Your task to perform on an android device: What's a good restaurant in New Jersey? Image 0: 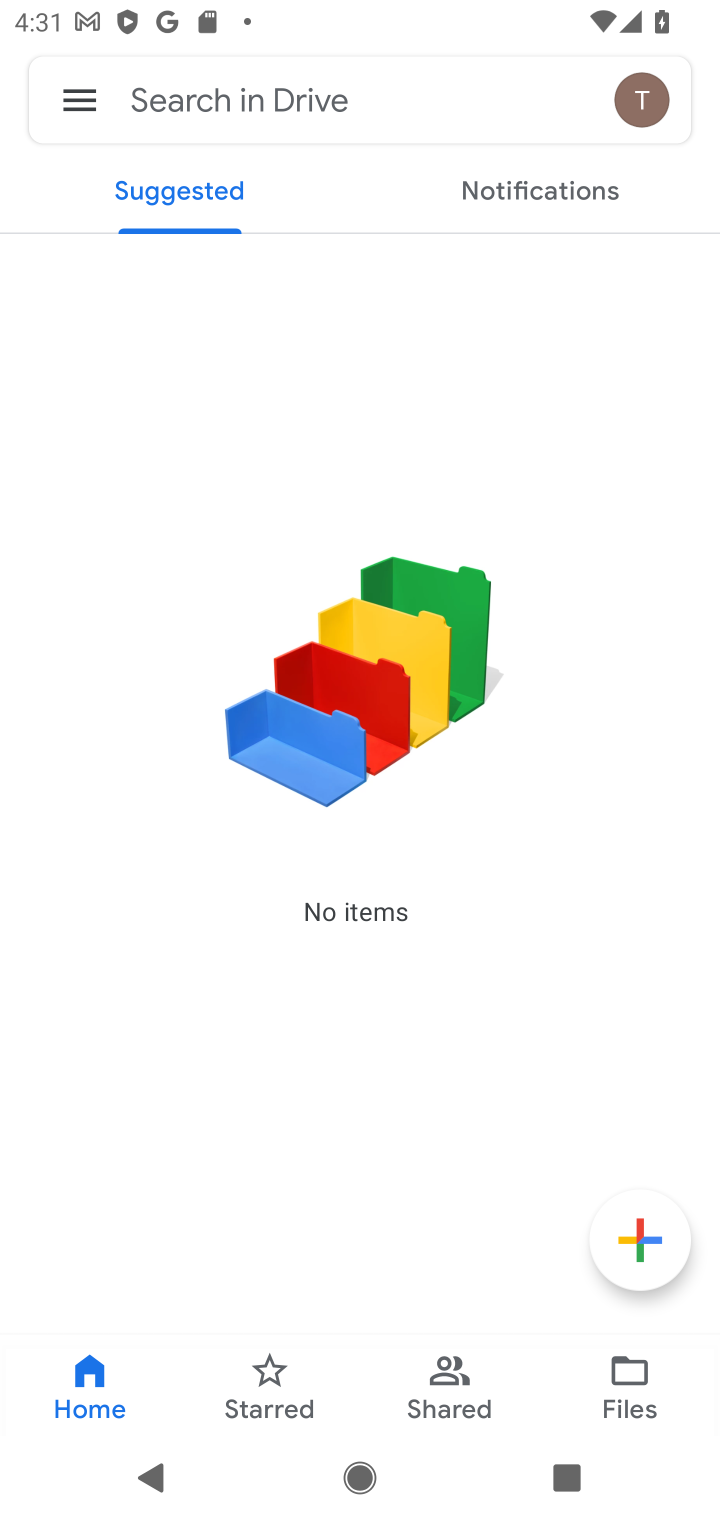
Step 0: press home button
Your task to perform on an android device: What's a good restaurant in New Jersey? Image 1: 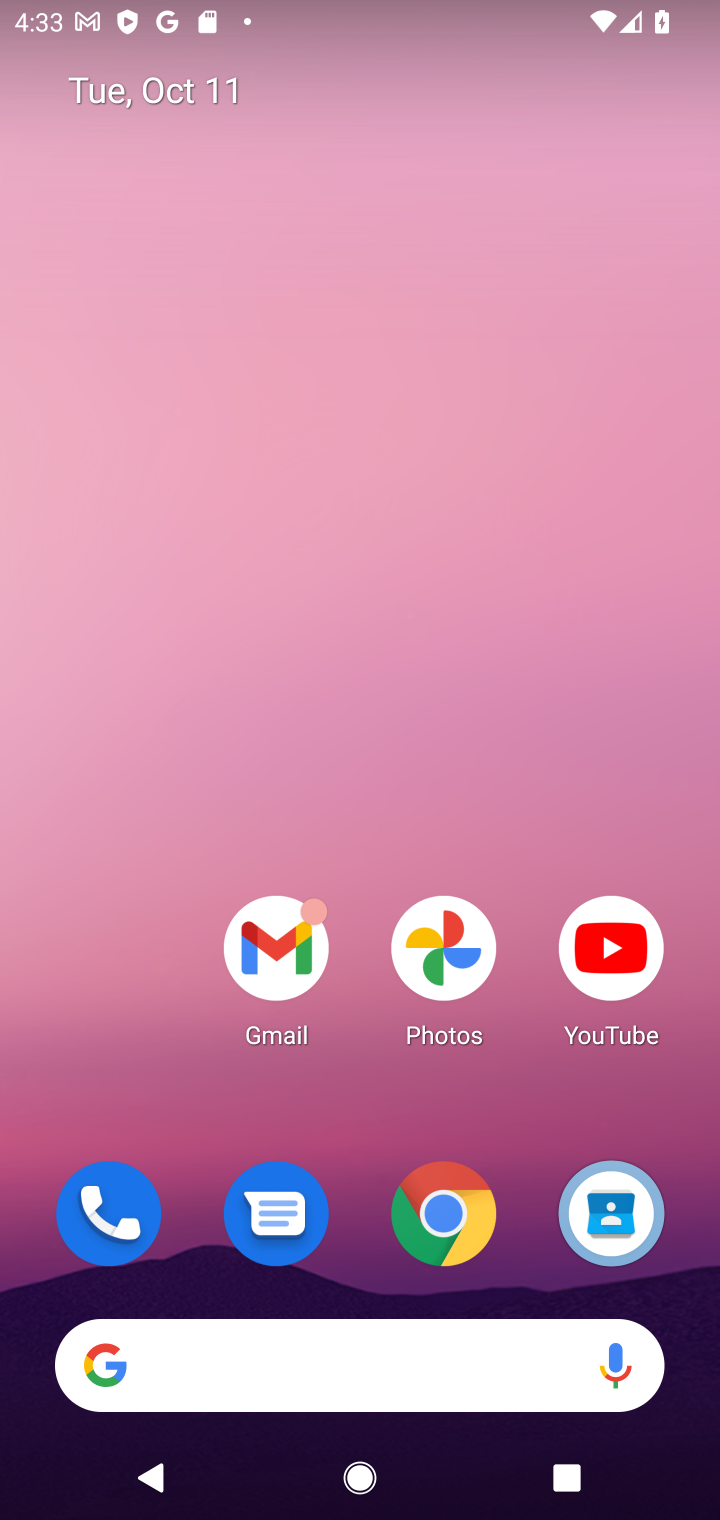
Step 1: click (430, 1217)
Your task to perform on an android device: What's a good restaurant in New Jersey? Image 2: 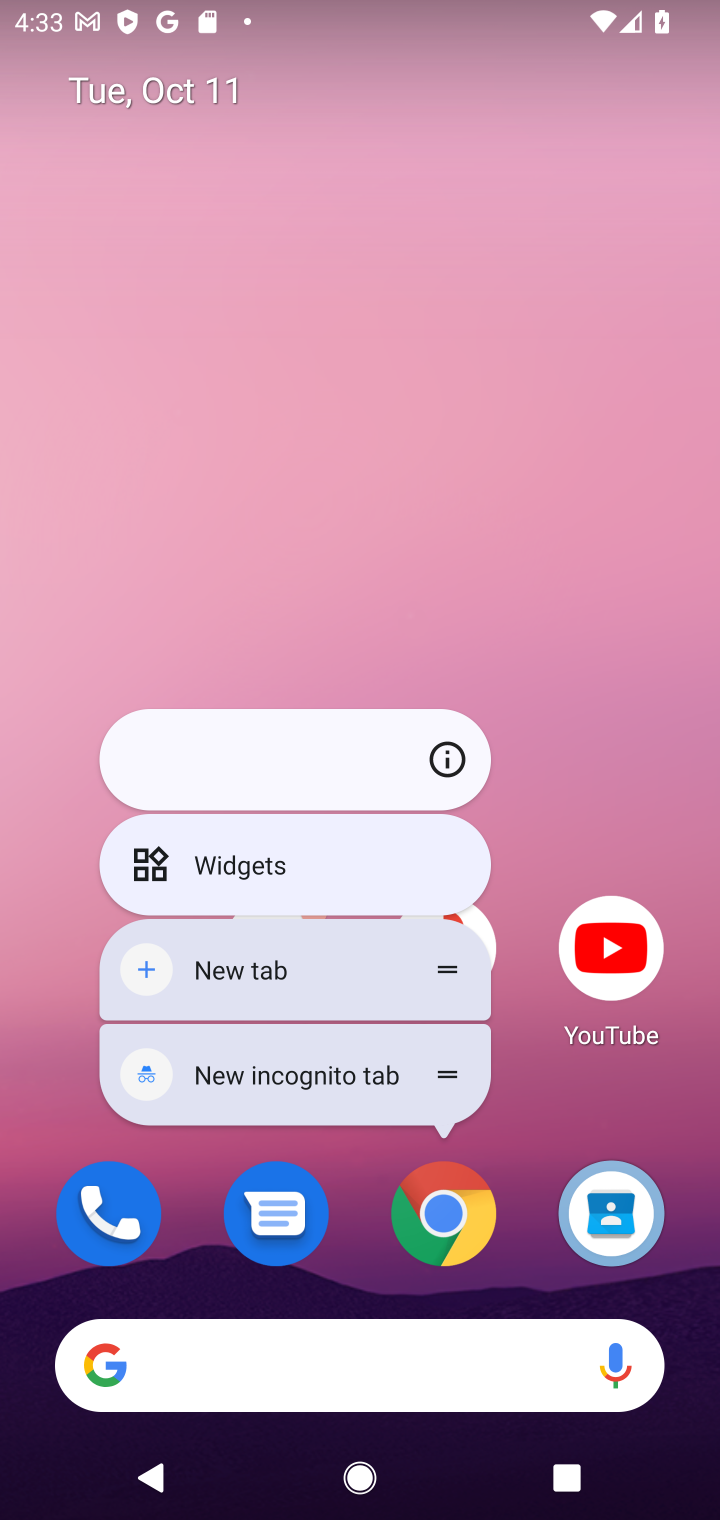
Step 2: click (461, 1232)
Your task to perform on an android device: What's a good restaurant in New Jersey? Image 3: 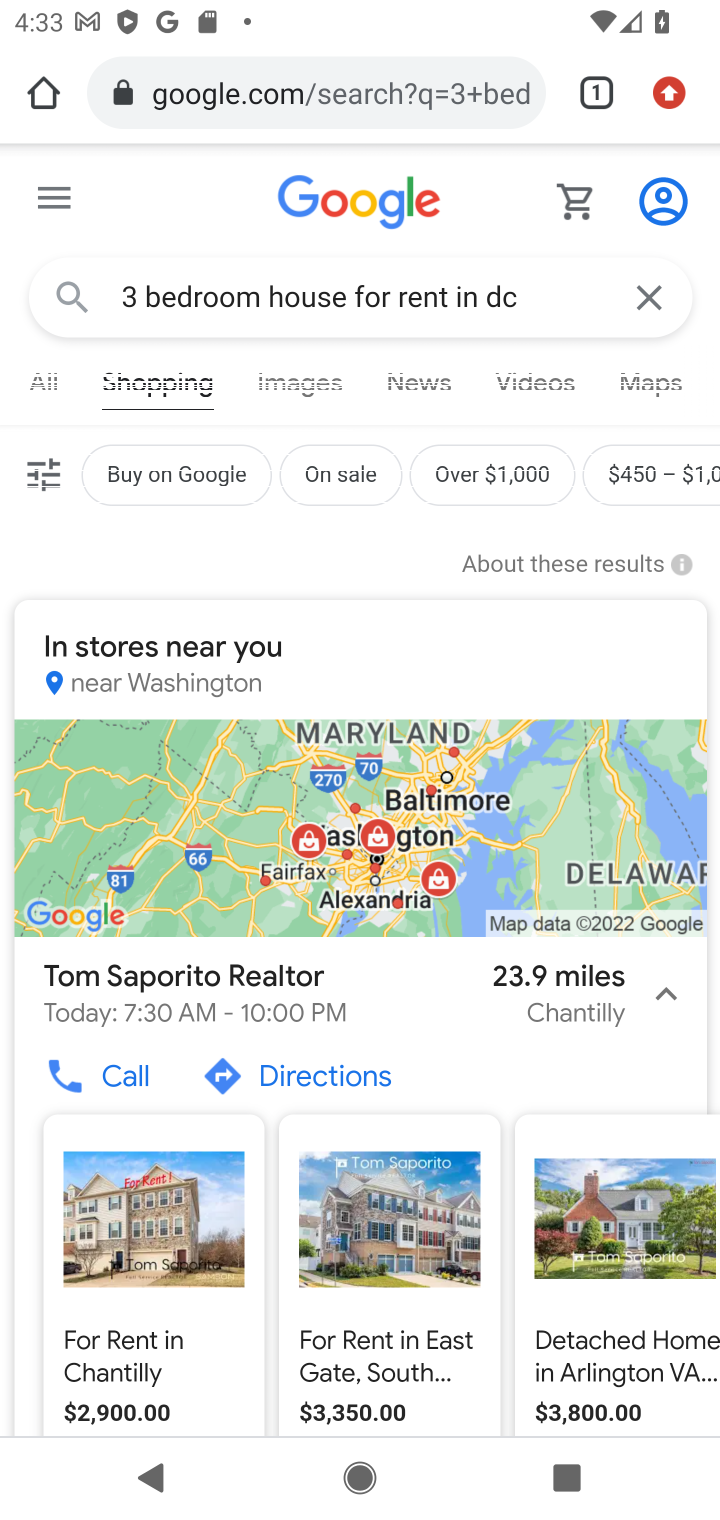
Step 3: click (319, 291)
Your task to perform on an android device: What's a good restaurant in New Jersey? Image 4: 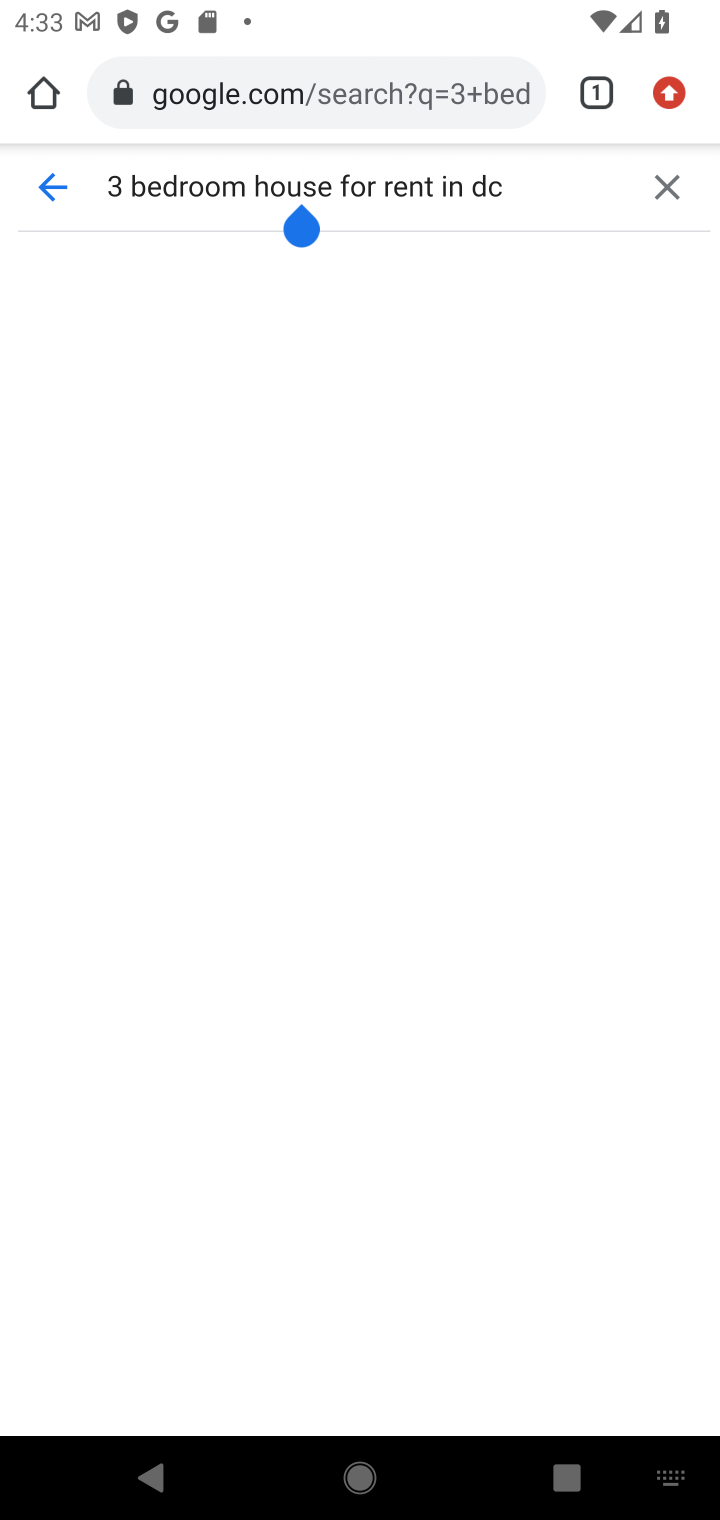
Step 4: click (666, 197)
Your task to perform on an android device: What's a good restaurant in New Jersey? Image 5: 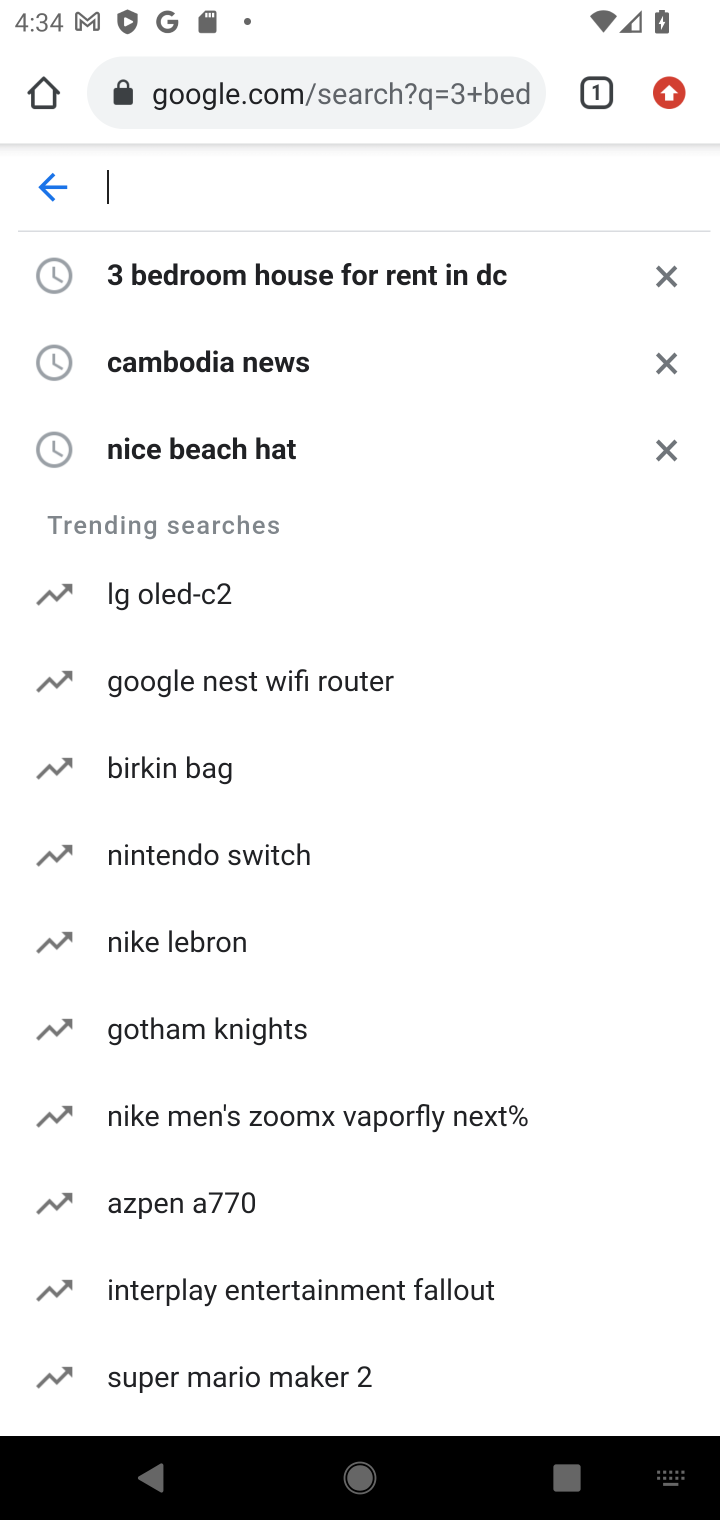
Step 5: type "restaurant in new jersey"
Your task to perform on an android device: What's a good restaurant in New Jersey? Image 6: 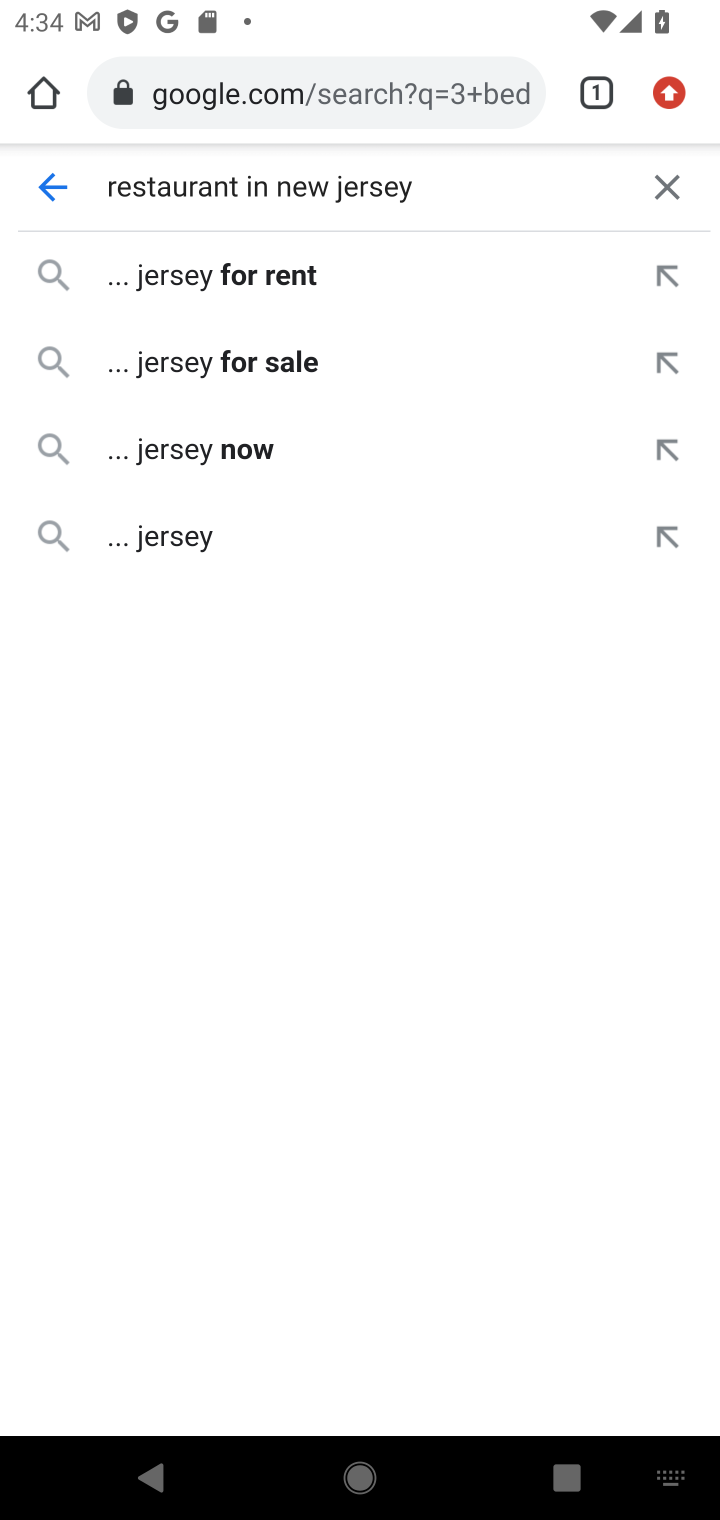
Step 6: click (97, 185)
Your task to perform on an android device: What's a good restaurant in New Jersey? Image 7: 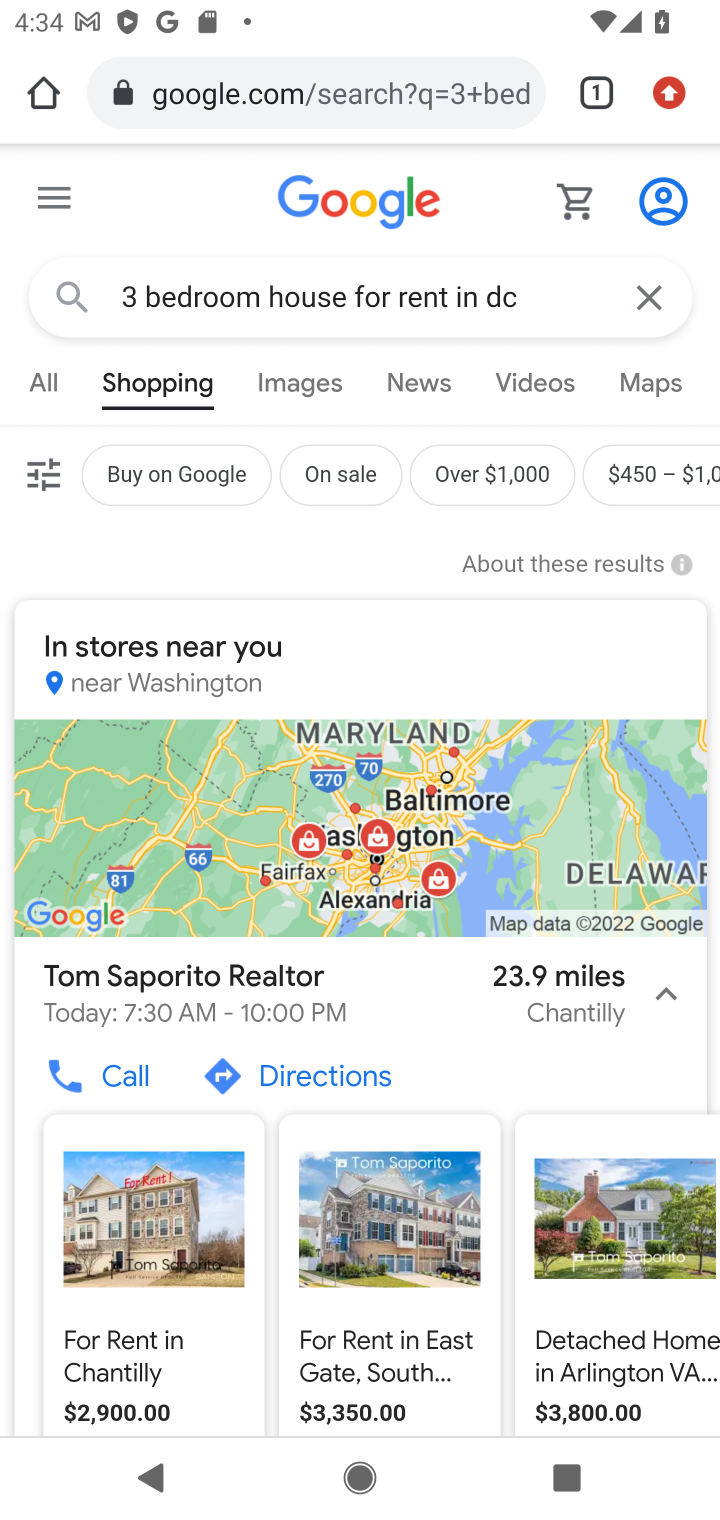
Step 7: click (684, 309)
Your task to perform on an android device: What's a good restaurant in New Jersey? Image 8: 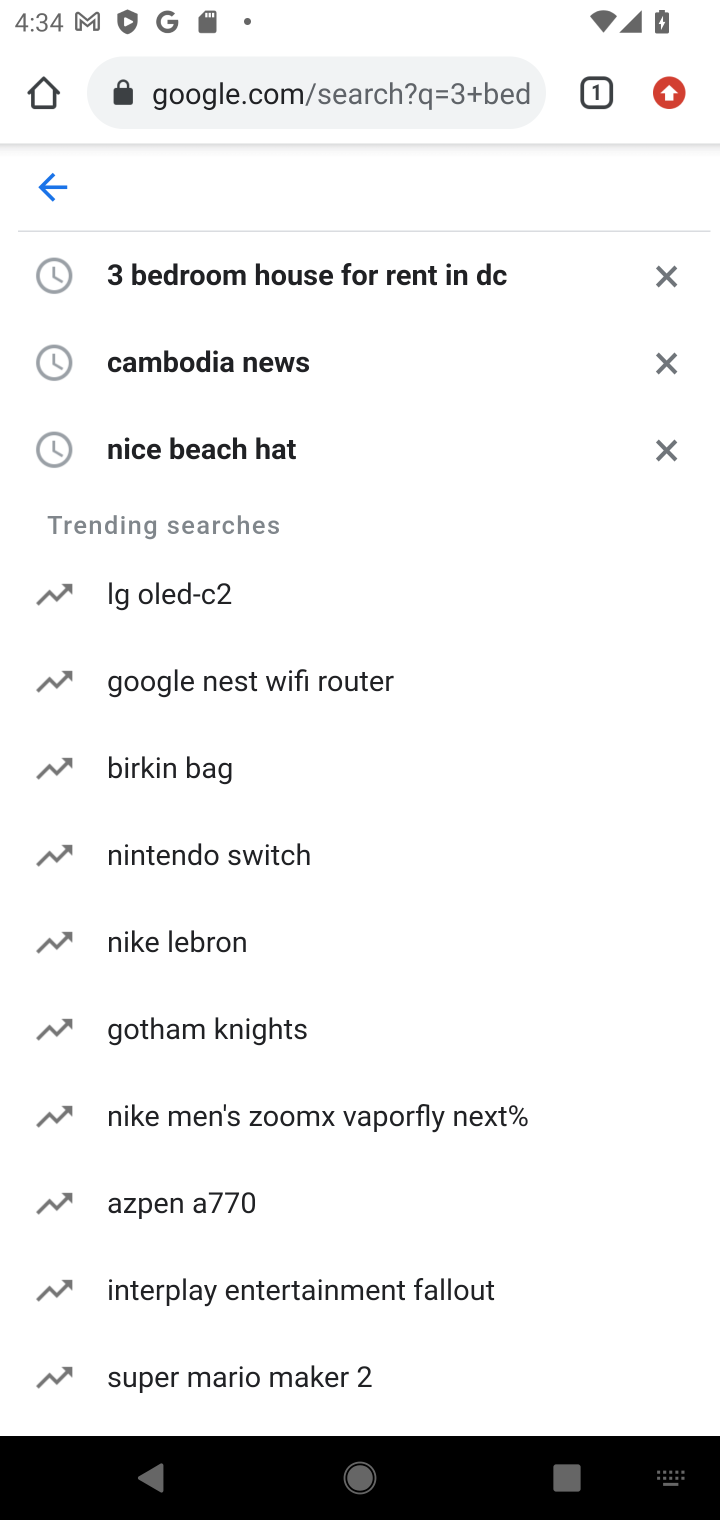
Step 8: type "good restaurant in new jersey"
Your task to perform on an android device: What's a good restaurant in New Jersey? Image 9: 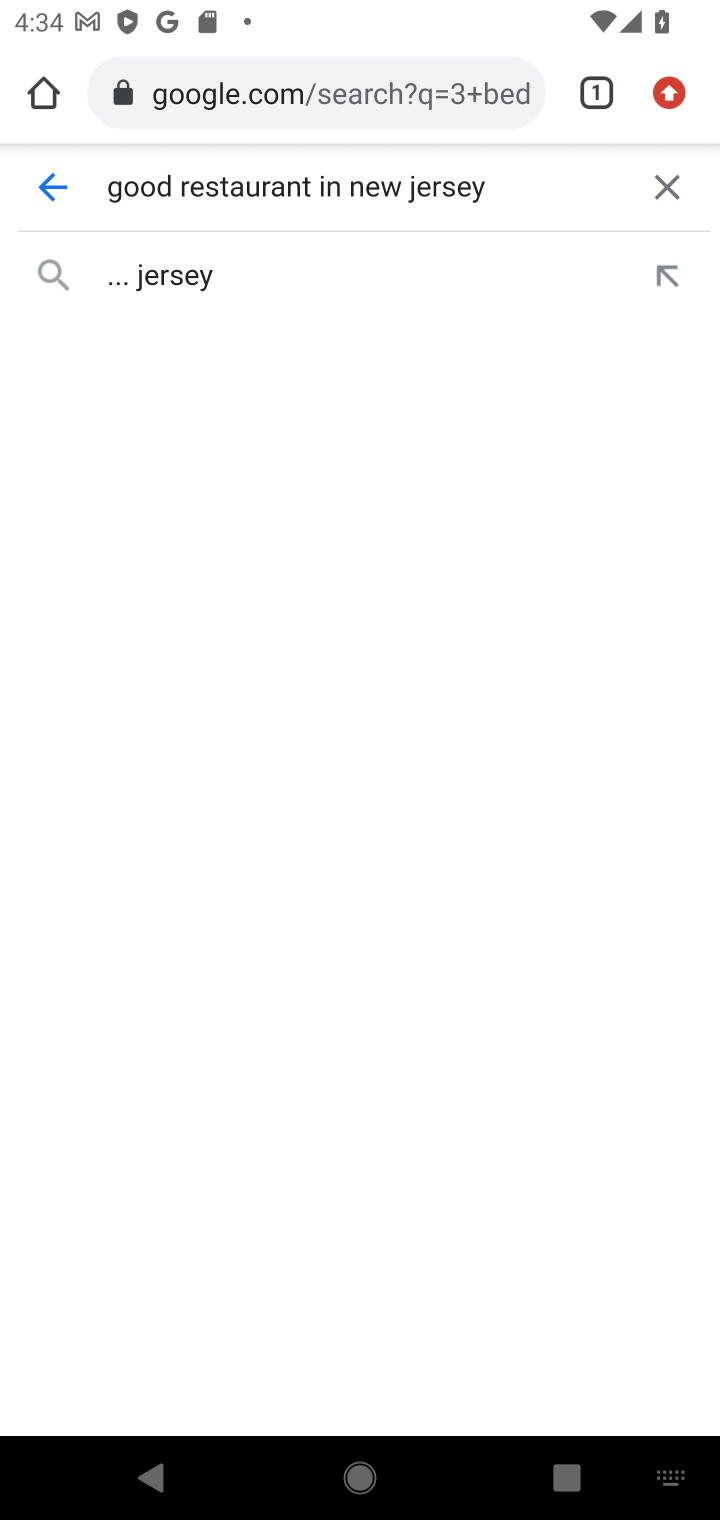
Step 9: click (171, 290)
Your task to perform on an android device: What's a good restaurant in New Jersey? Image 10: 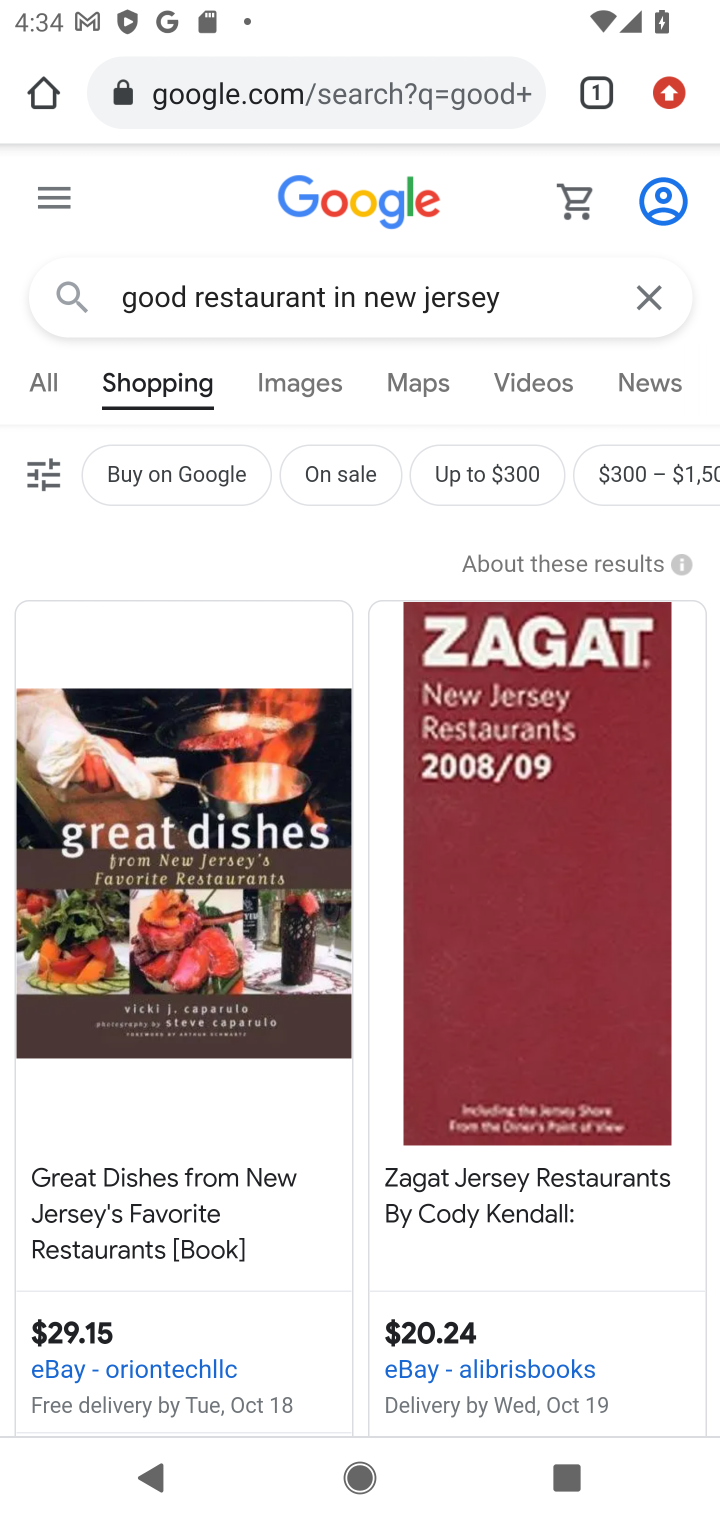
Step 10: click (38, 389)
Your task to perform on an android device: What's a good restaurant in New Jersey? Image 11: 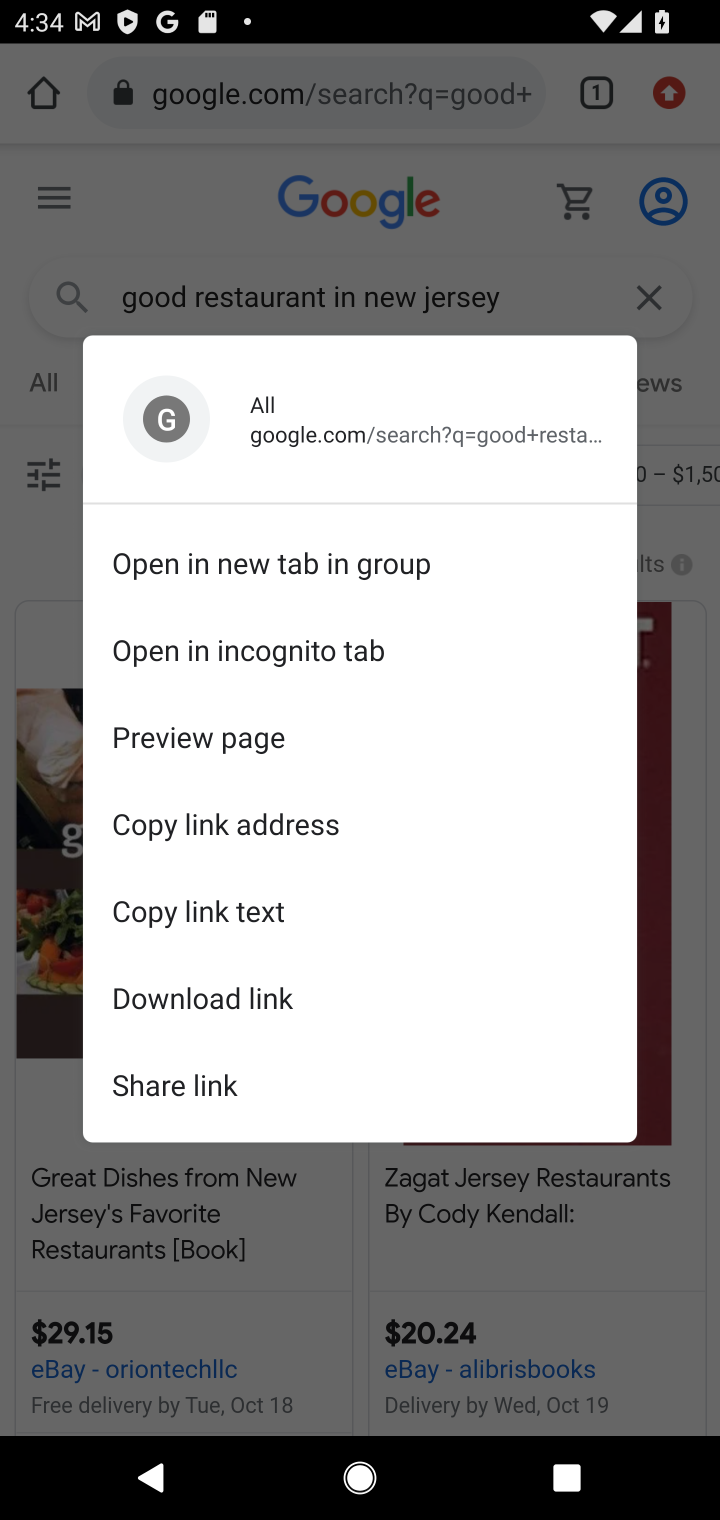
Step 11: click (48, 387)
Your task to perform on an android device: What's a good restaurant in New Jersey? Image 12: 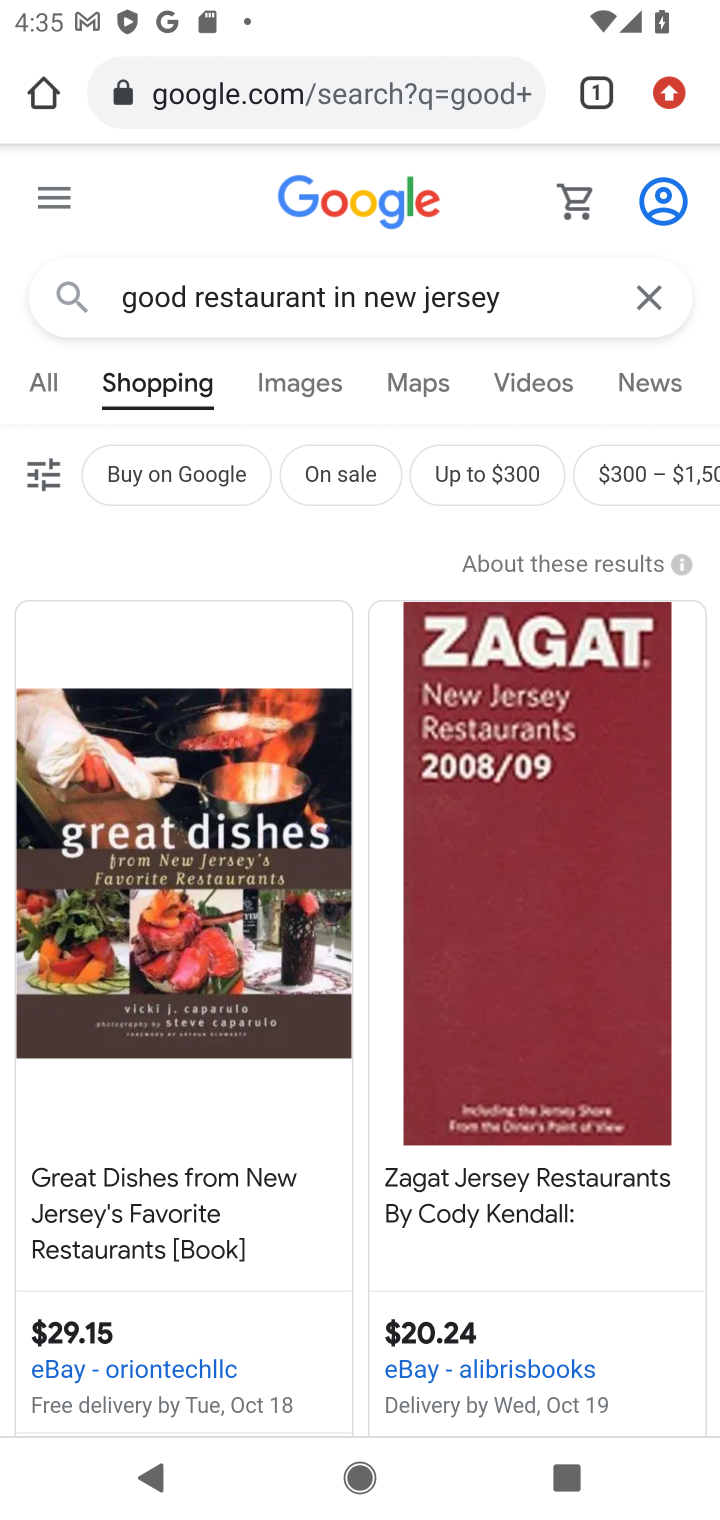
Step 12: click (48, 380)
Your task to perform on an android device: What's a good restaurant in New Jersey? Image 13: 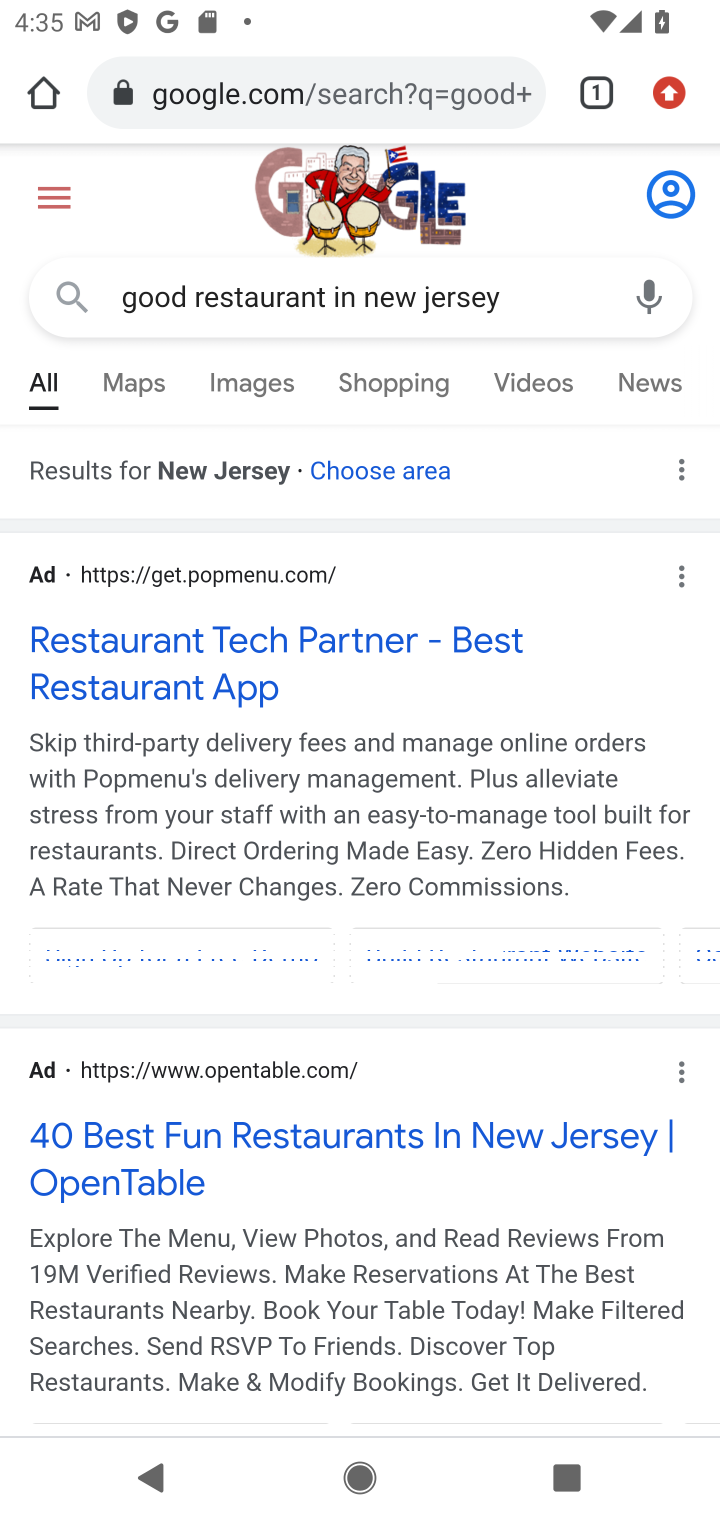
Step 13: click (188, 690)
Your task to perform on an android device: What's a good restaurant in New Jersey? Image 14: 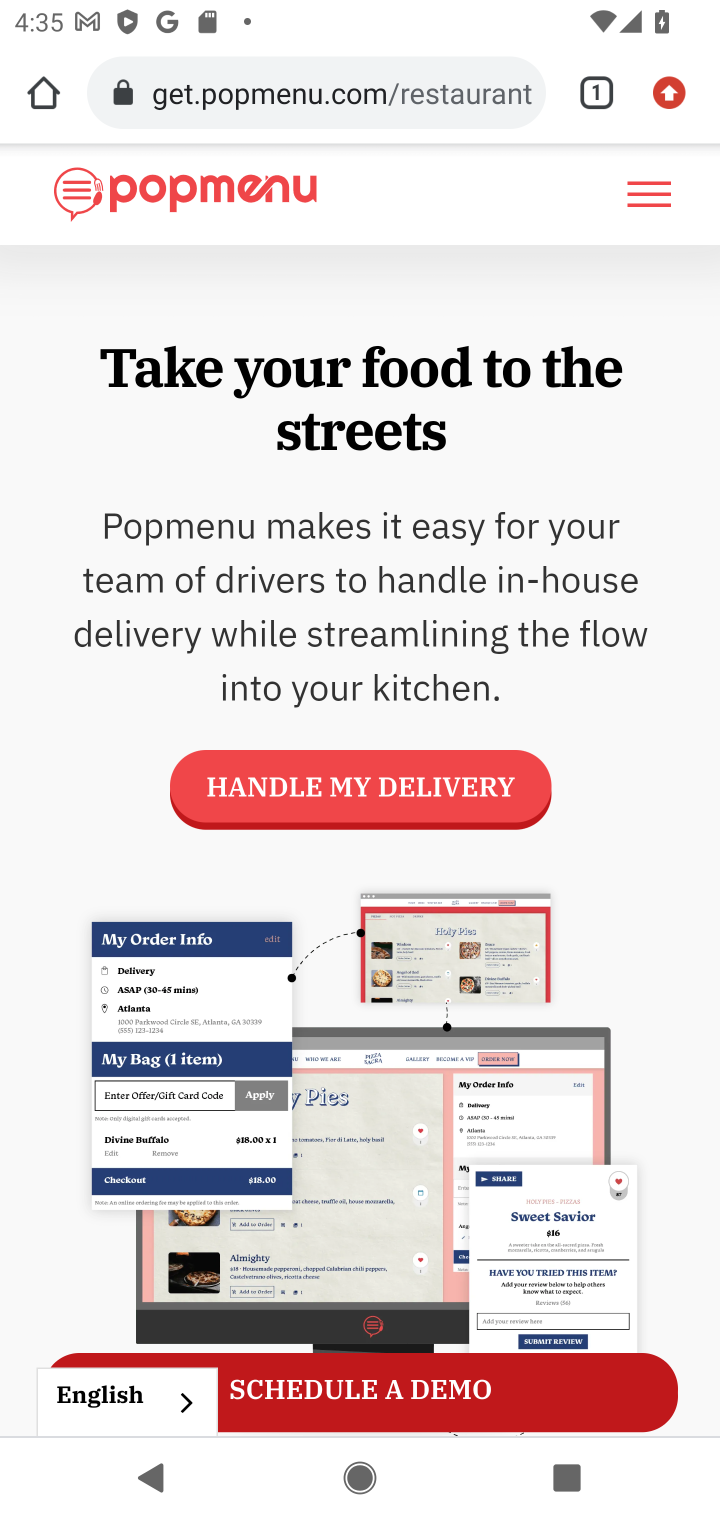
Step 14: drag from (629, 1011) to (567, 480)
Your task to perform on an android device: What's a good restaurant in New Jersey? Image 15: 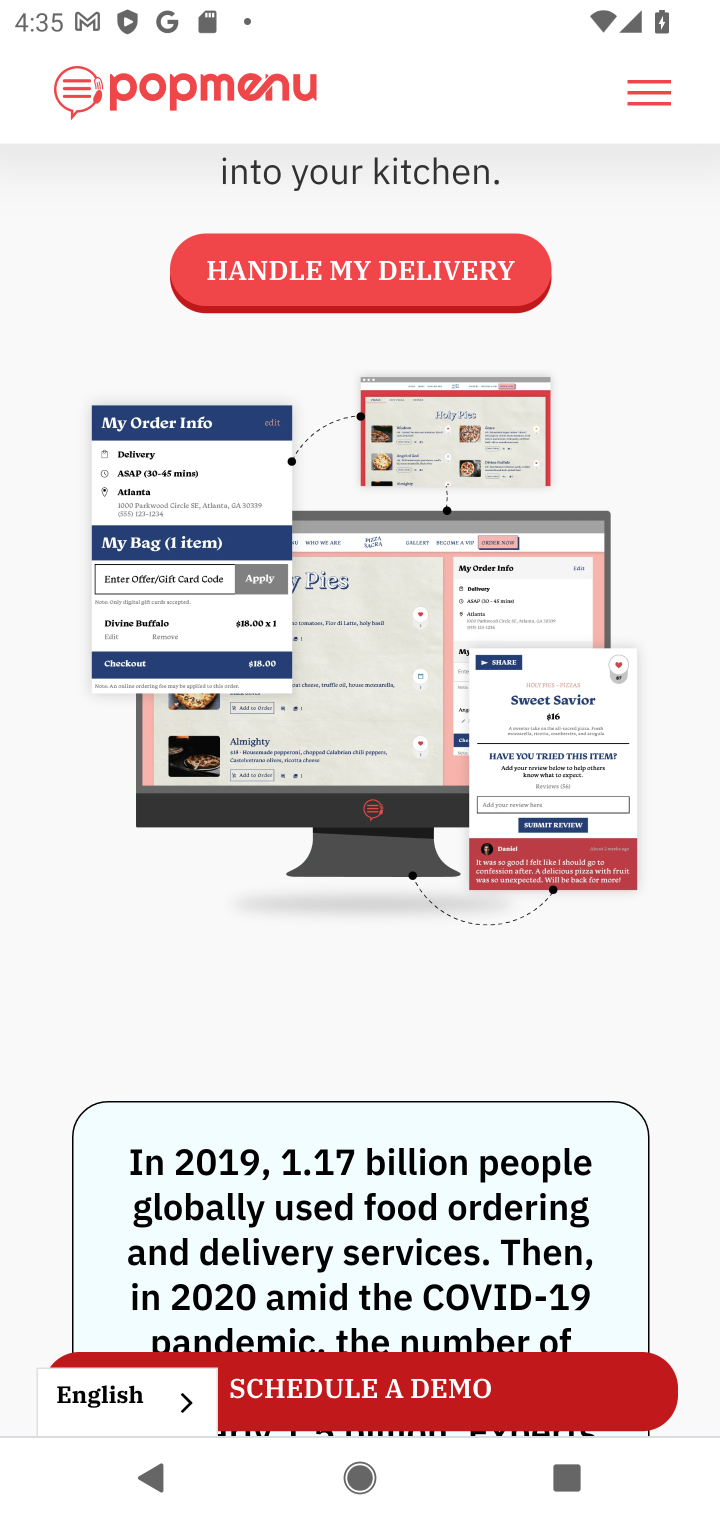
Step 15: drag from (557, 1032) to (519, 391)
Your task to perform on an android device: What's a good restaurant in New Jersey? Image 16: 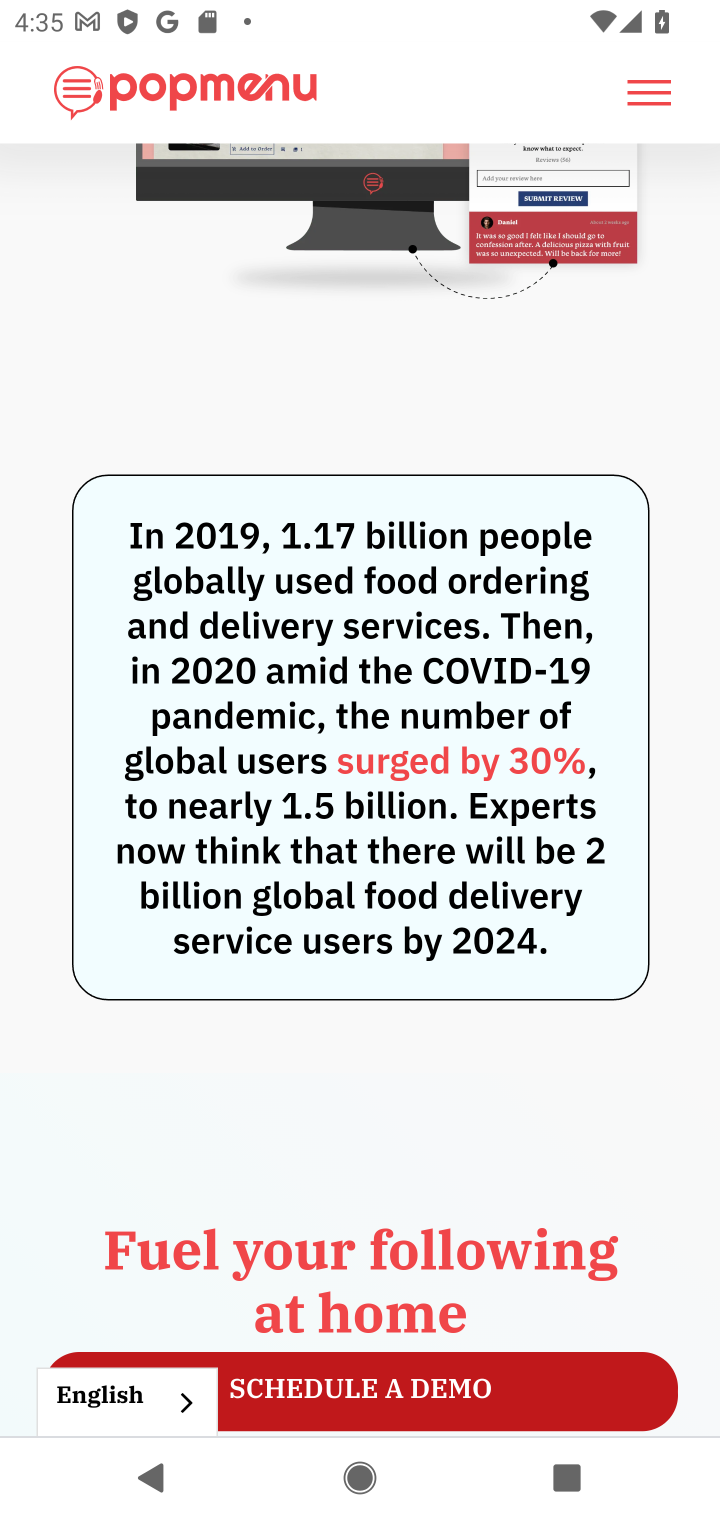
Step 16: drag from (535, 1020) to (476, 399)
Your task to perform on an android device: What's a good restaurant in New Jersey? Image 17: 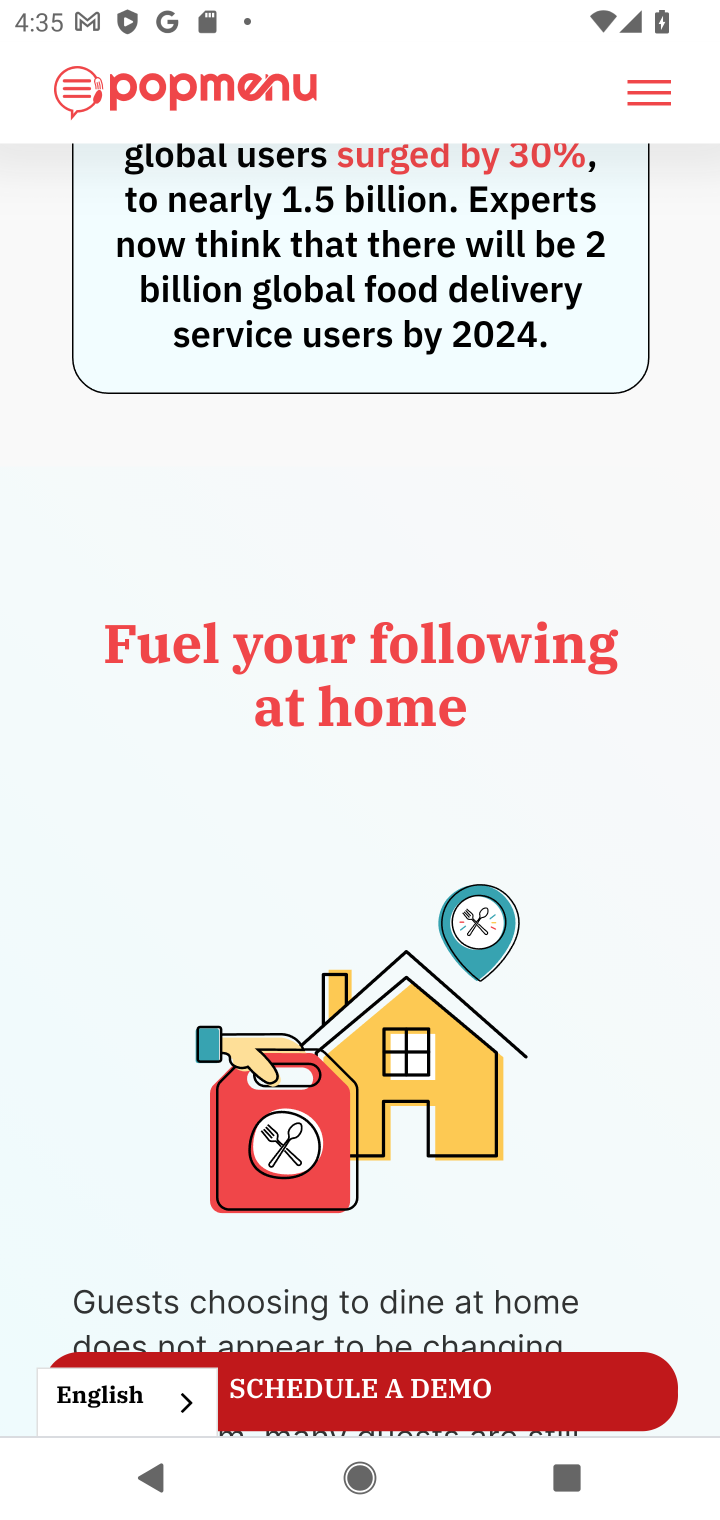
Step 17: press back button
Your task to perform on an android device: What's a good restaurant in New Jersey? Image 18: 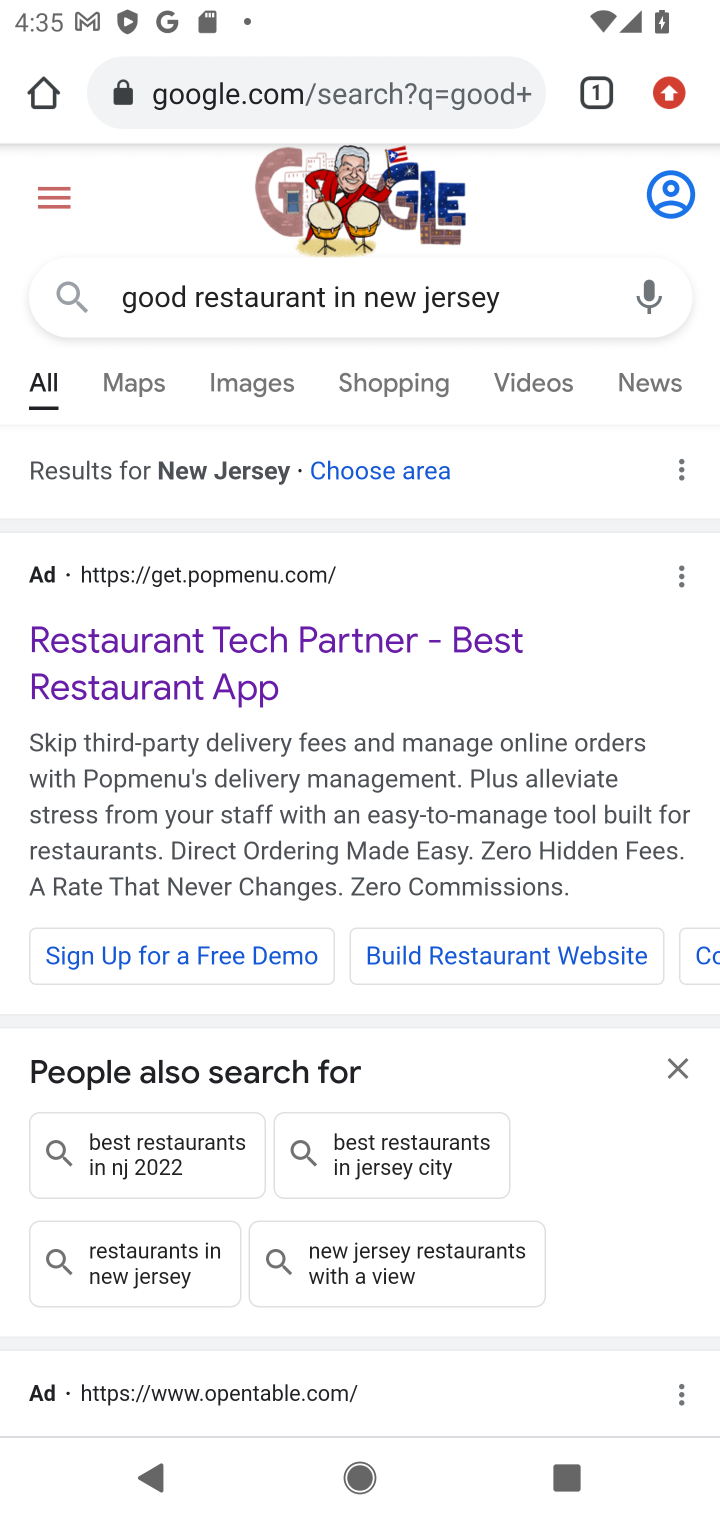
Step 18: drag from (477, 944) to (454, 620)
Your task to perform on an android device: What's a good restaurant in New Jersey? Image 19: 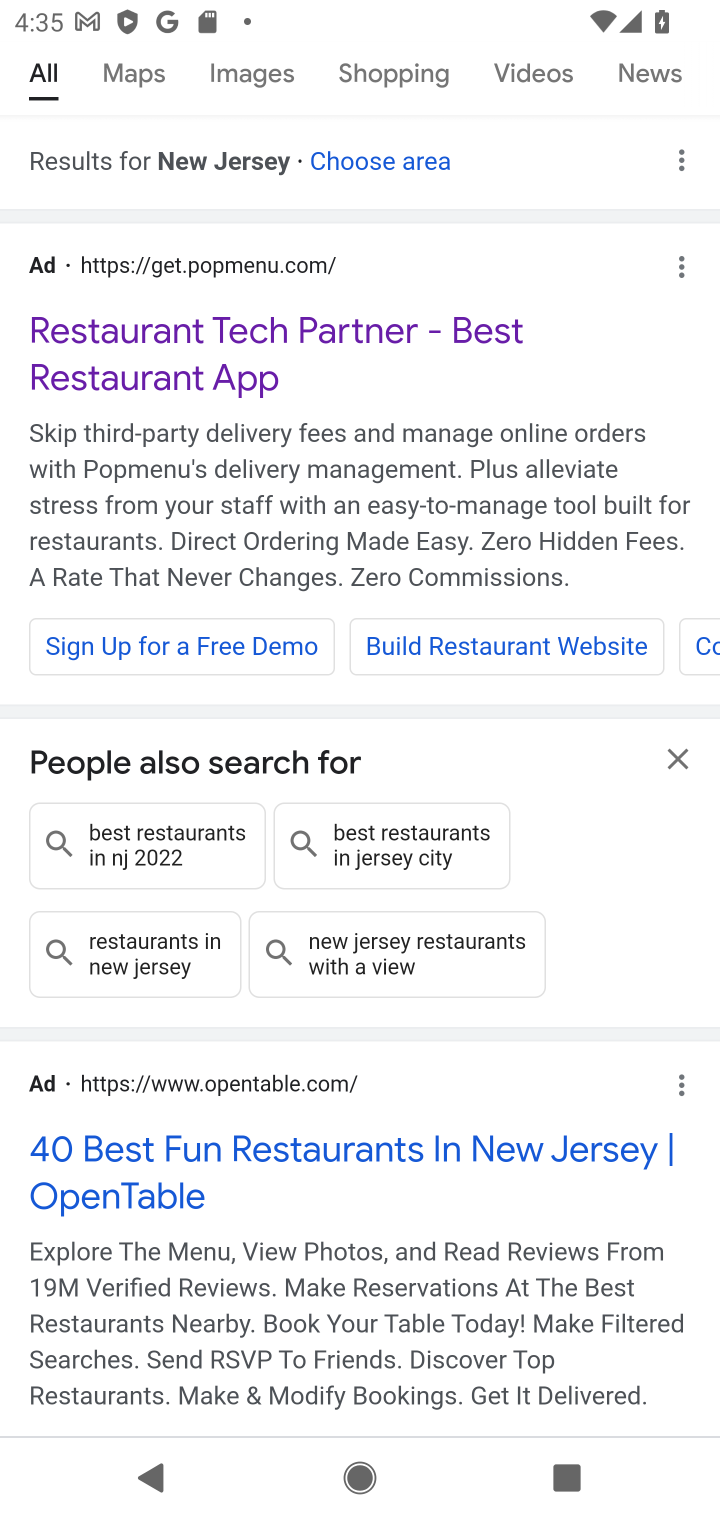
Step 19: click (171, 1166)
Your task to perform on an android device: What's a good restaurant in New Jersey? Image 20: 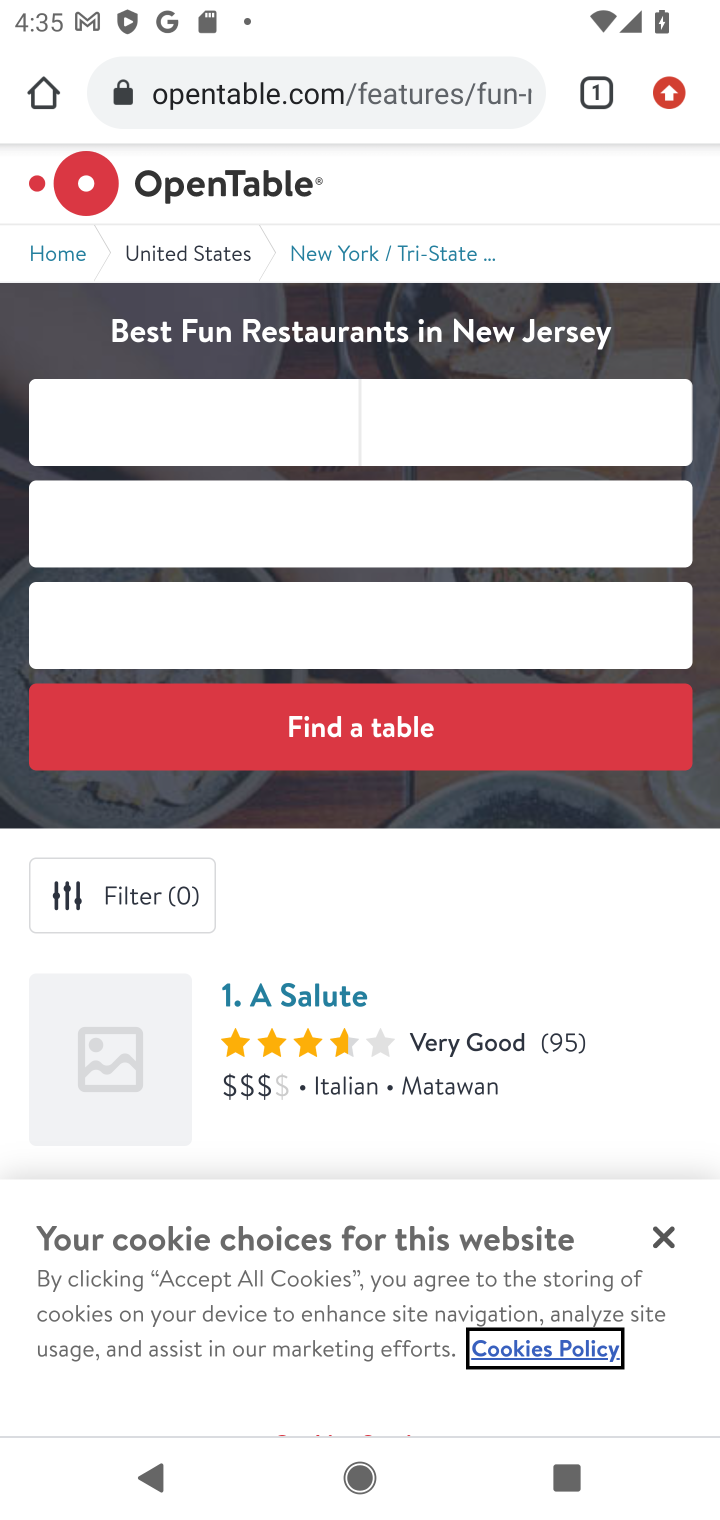
Step 20: task complete